Your task to perform on an android device: Go to accessibility settings Image 0: 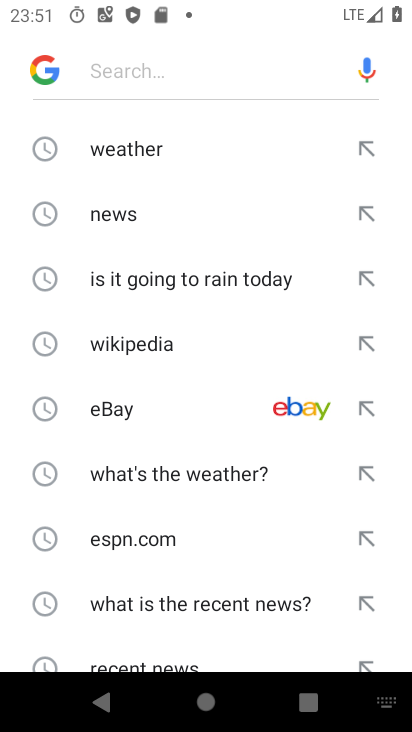
Step 0: press home button
Your task to perform on an android device: Go to accessibility settings Image 1: 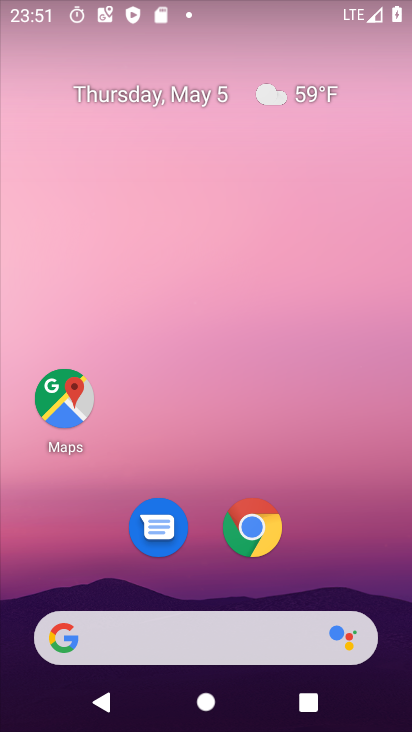
Step 1: drag from (199, 570) to (224, 34)
Your task to perform on an android device: Go to accessibility settings Image 2: 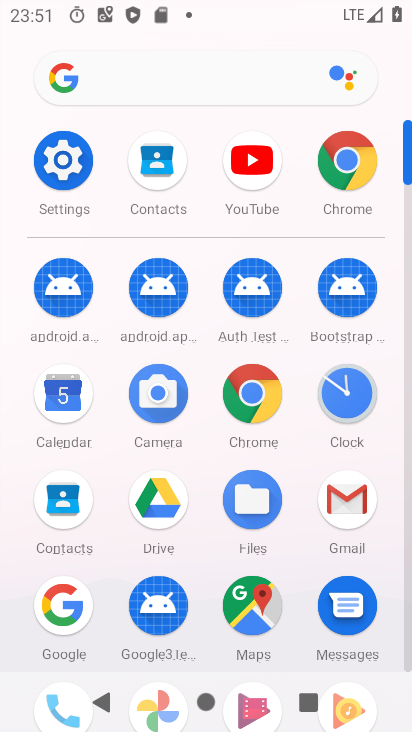
Step 2: click (75, 177)
Your task to perform on an android device: Go to accessibility settings Image 3: 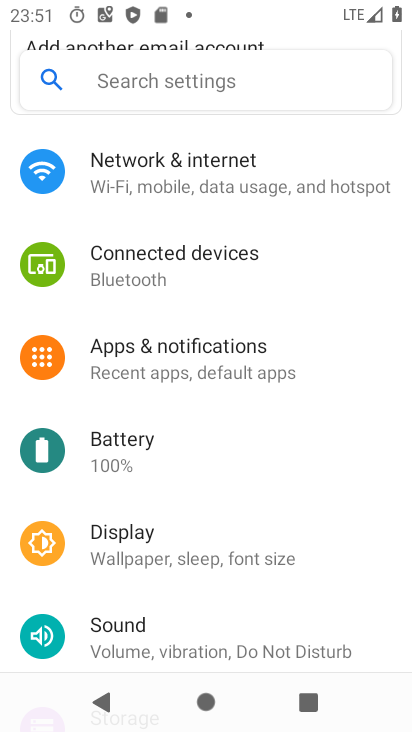
Step 3: drag from (125, 466) to (187, 52)
Your task to perform on an android device: Go to accessibility settings Image 4: 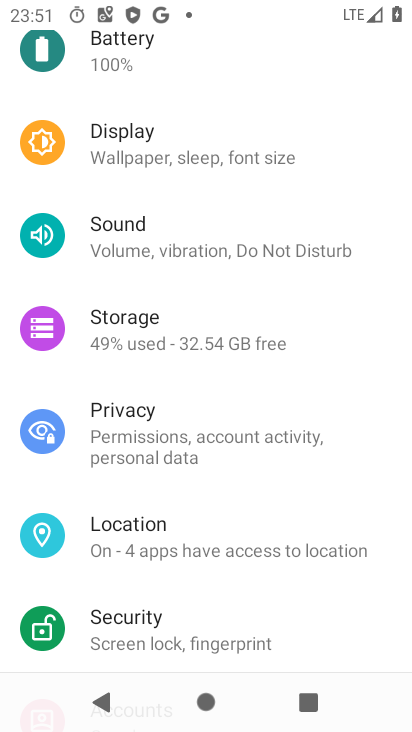
Step 4: drag from (132, 503) to (190, 185)
Your task to perform on an android device: Go to accessibility settings Image 5: 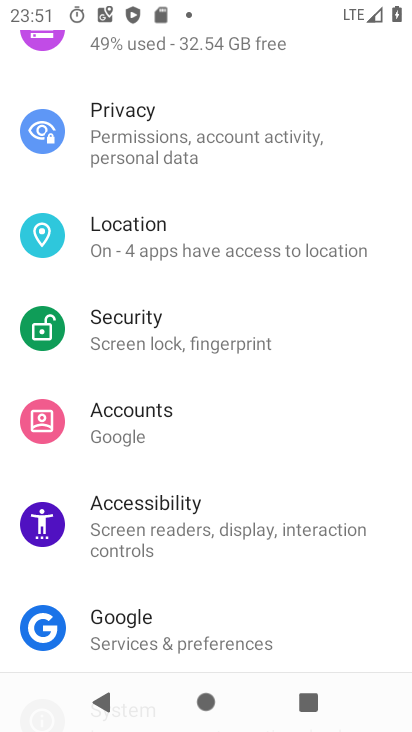
Step 5: click (168, 512)
Your task to perform on an android device: Go to accessibility settings Image 6: 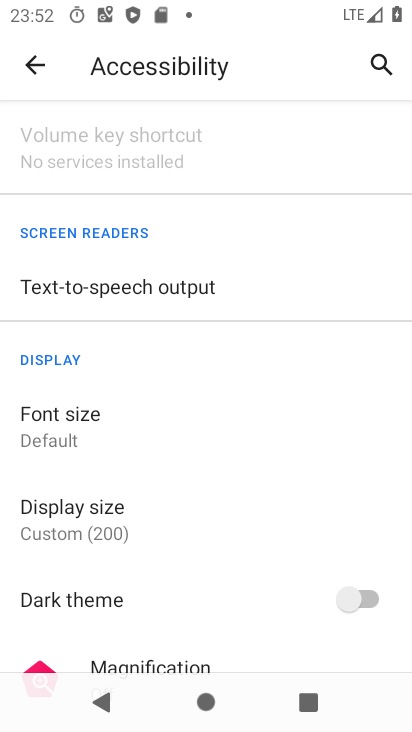
Step 6: task complete